Your task to perform on an android device: Open Maps and search for coffee Image 0: 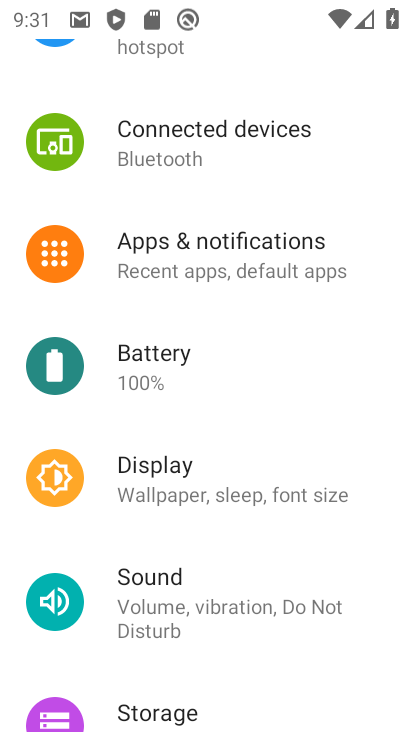
Step 0: press home button
Your task to perform on an android device: Open Maps and search for coffee Image 1: 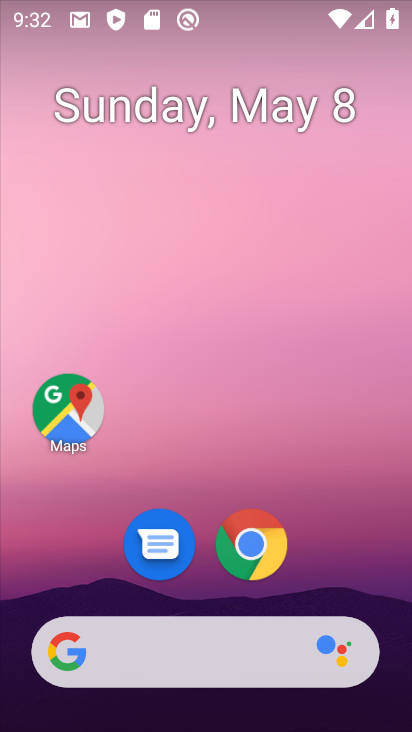
Step 1: click (75, 408)
Your task to perform on an android device: Open Maps and search for coffee Image 2: 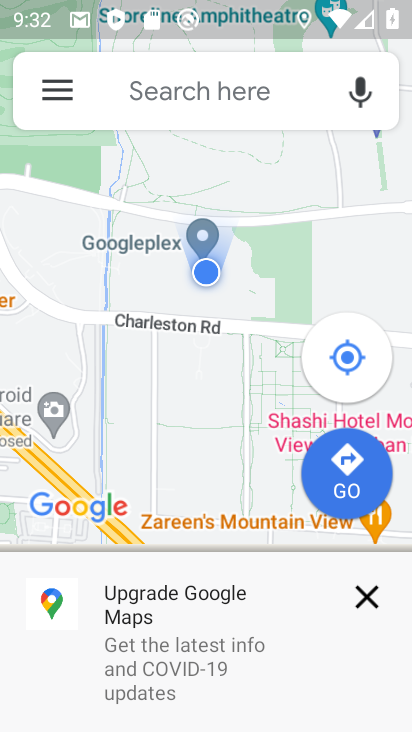
Step 2: click (253, 89)
Your task to perform on an android device: Open Maps and search for coffee Image 3: 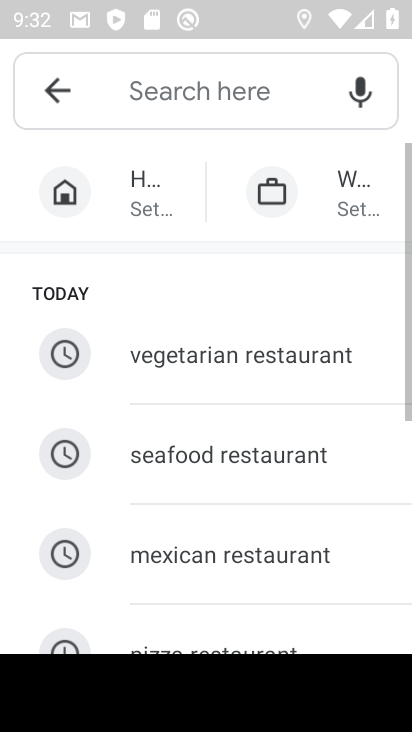
Step 3: drag from (201, 503) to (228, 320)
Your task to perform on an android device: Open Maps and search for coffee Image 4: 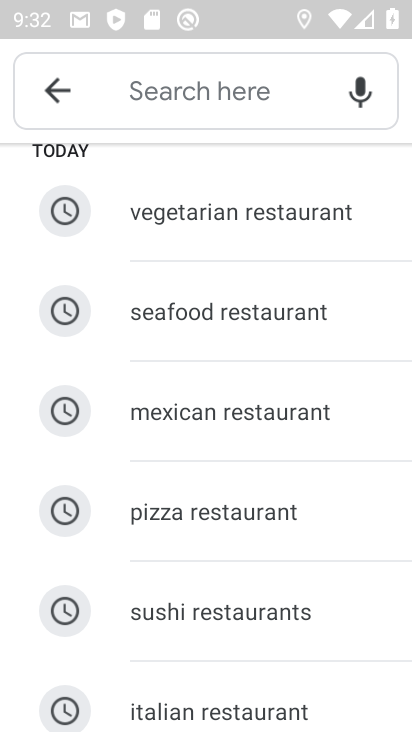
Step 4: drag from (235, 548) to (252, 415)
Your task to perform on an android device: Open Maps and search for coffee Image 5: 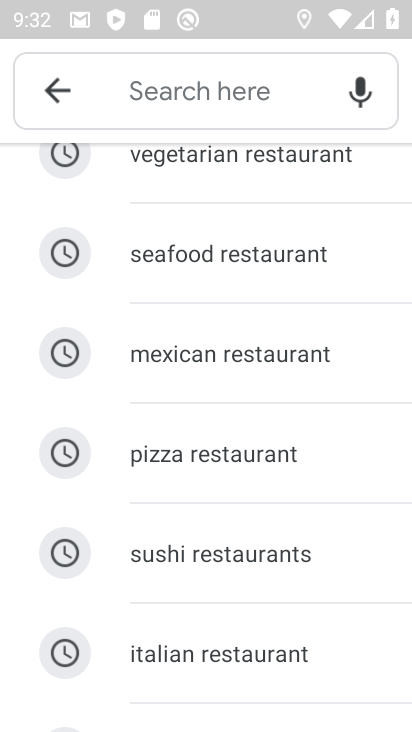
Step 5: type "coffee"
Your task to perform on an android device: Open Maps and search for coffee Image 6: 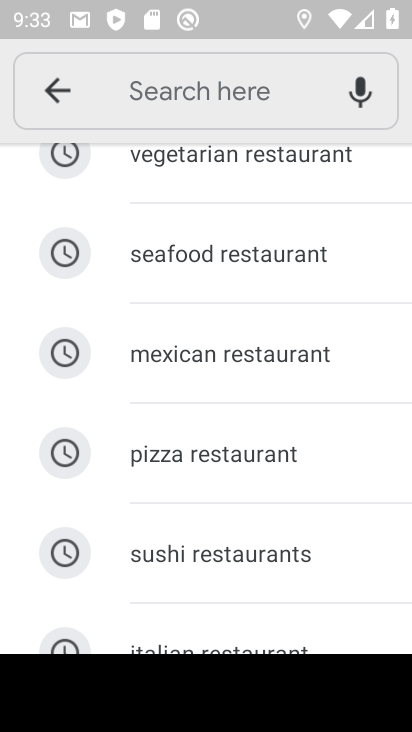
Step 6: click (282, 90)
Your task to perform on an android device: Open Maps and search for coffee Image 7: 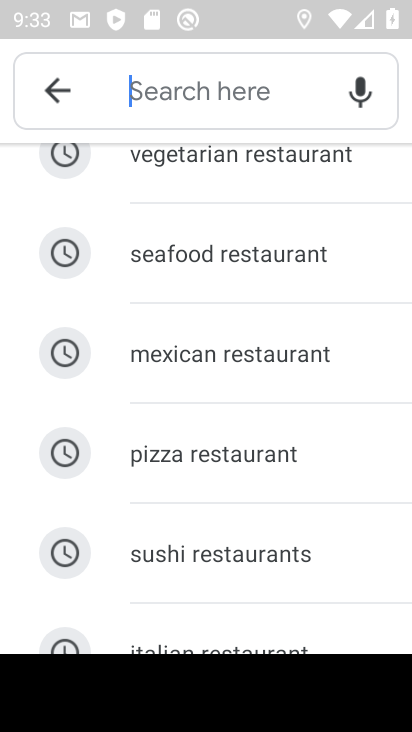
Step 7: type "cofffee"
Your task to perform on an android device: Open Maps and search for coffee Image 8: 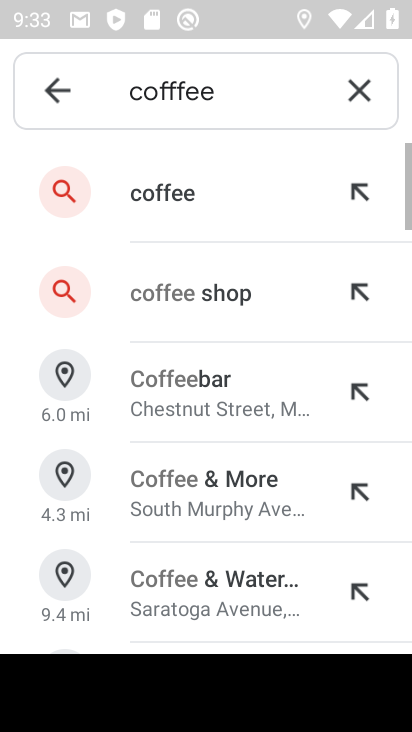
Step 8: click (227, 212)
Your task to perform on an android device: Open Maps and search for coffee Image 9: 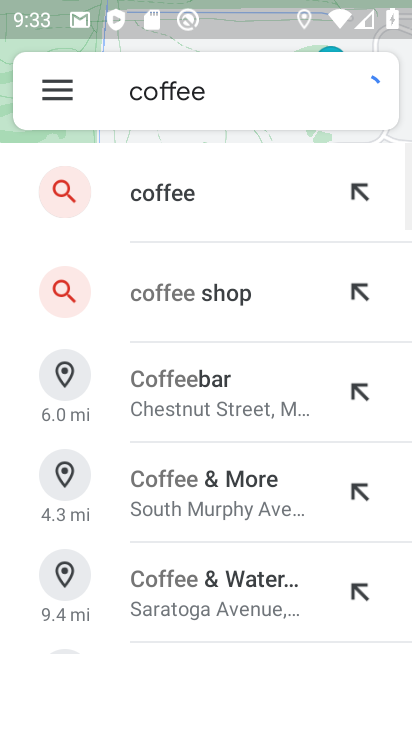
Step 9: task complete